Your task to perform on an android device: Open Google Maps and go to "Timeline" Image 0: 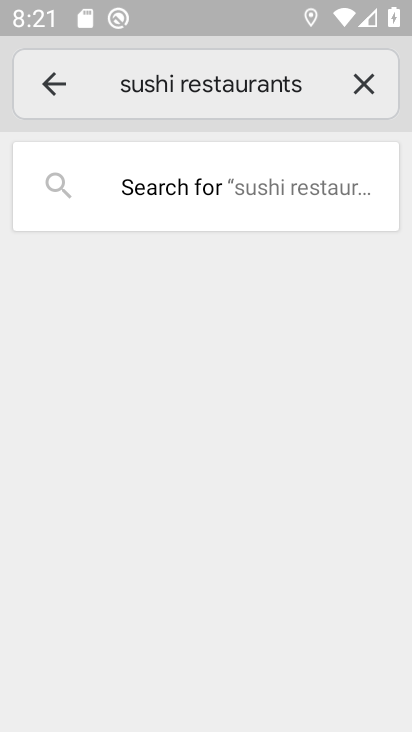
Step 0: press home button
Your task to perform on an android device: Open Google Maps and go to "Timeline" Image 1: 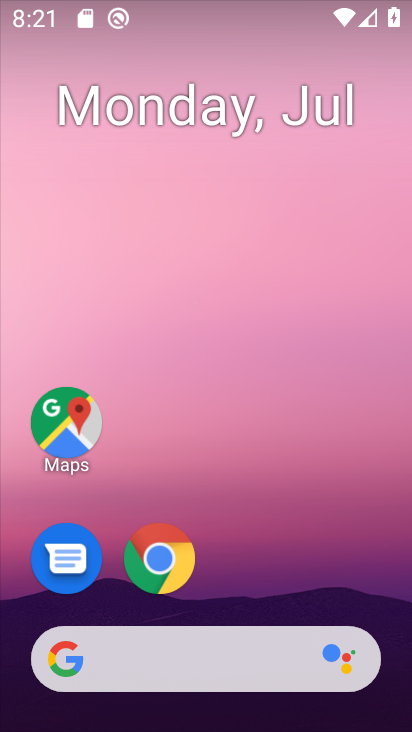
Step 1: drag from (320, 553) to (352, 190)
Your task to perform on an android device: Open Google Maps and go to "Timeline" Image 2: 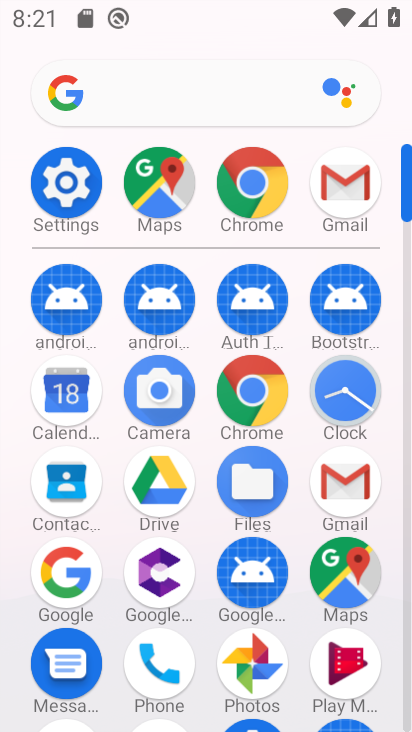
Step 2: click (179, 196)
Your task to perform on an android device: Open Google Maps and go to "Timeline" Image 3: 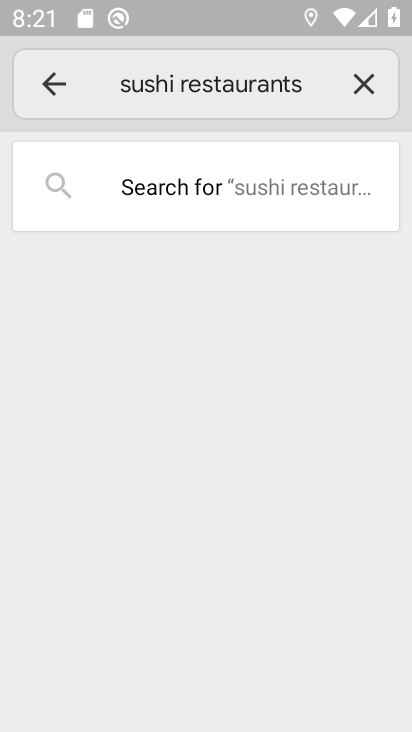
Step 3: press back button
Your task to perform on an android device: Open Google Maps and go to "Timeline" Image 4: 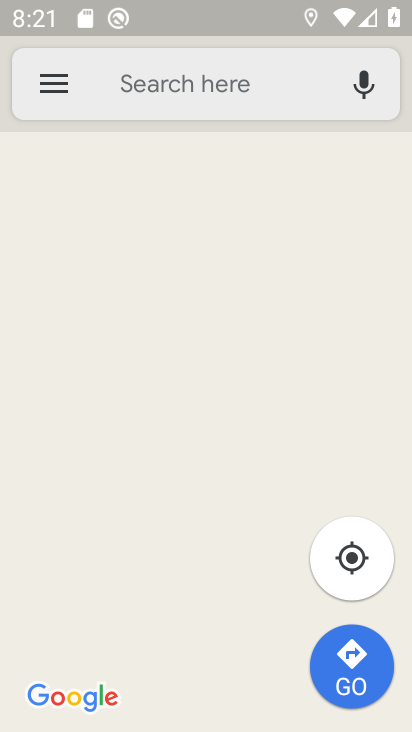
Step 4: click (57, 78)
Your task to perform on an android device: Open Google Maps and go to "Timeline" Image 5: 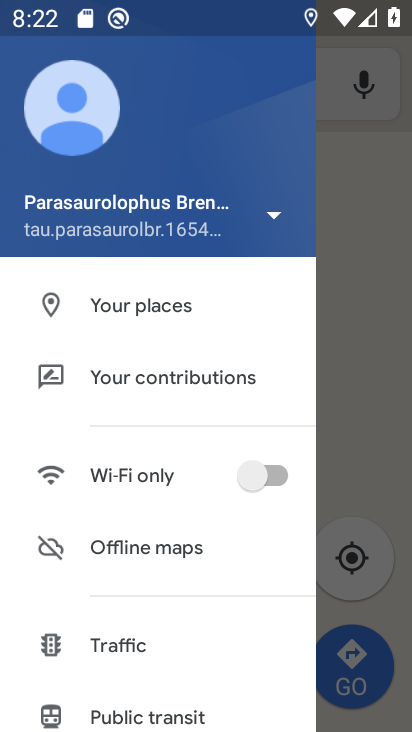
Step 5: task complete